Your task to perform on an android device: Go to Google maps Image 0: 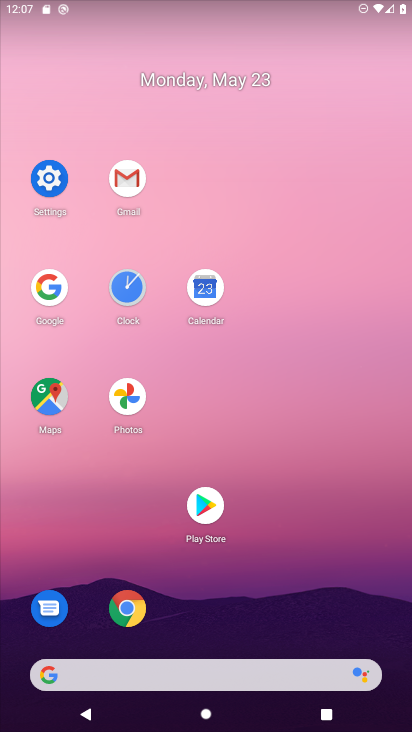
Step 0: click (55, 406)
Your task to perform on an android device: Go to Google maps Image 1: 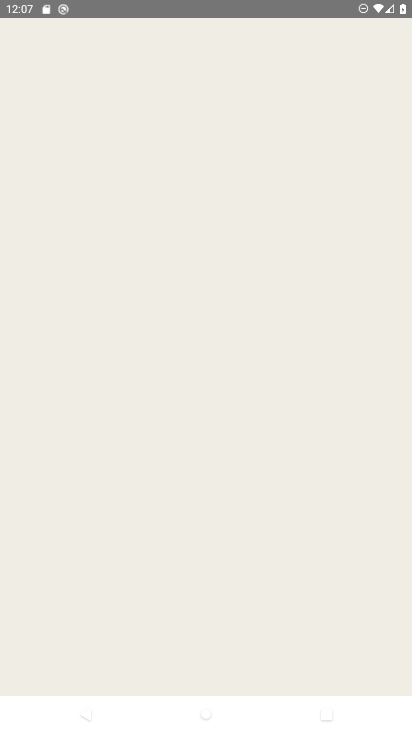
Step 1: task complete